Your task to perform on an android device: turn on the 24-hour format for clock Image 0: 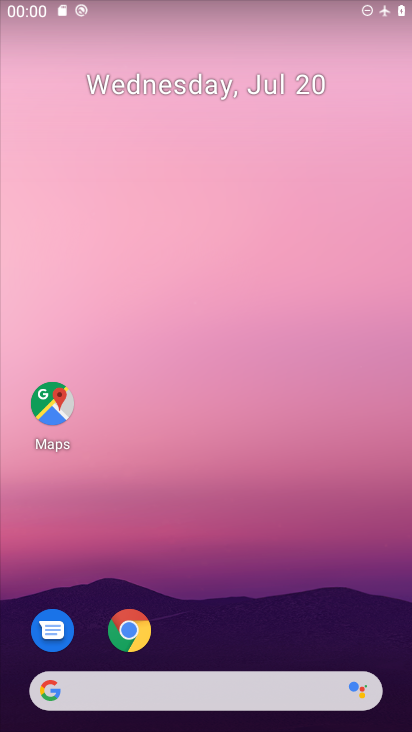
Step 0: drag from (205, 630) to (217, 139)
Your task to perform on an android device: turn on the 24-hour format for clock Image 1: 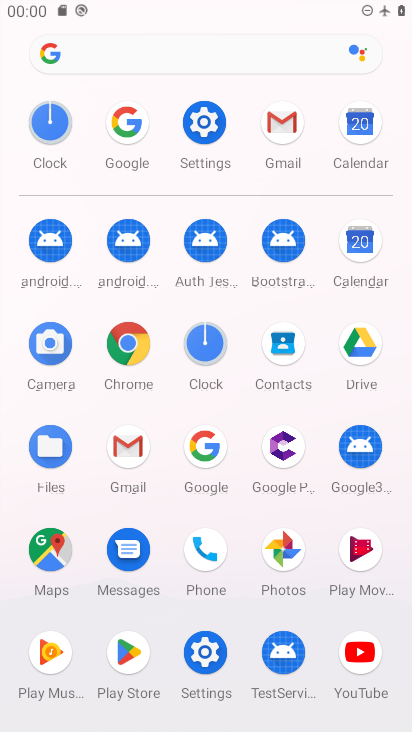
Step 1: click (196, 329)
Your task to perform on an android device: turn on the 24-hour format for clock Image 2: 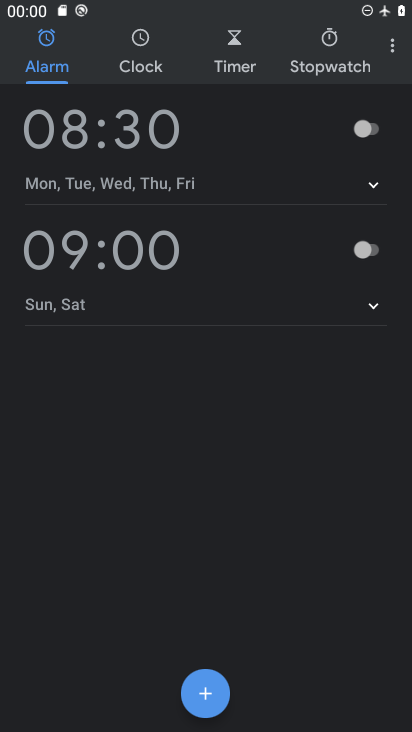
Step 2: click (387, 45)
Your task to perform on an android device: turn on the 24-hour format for clock Image 3: 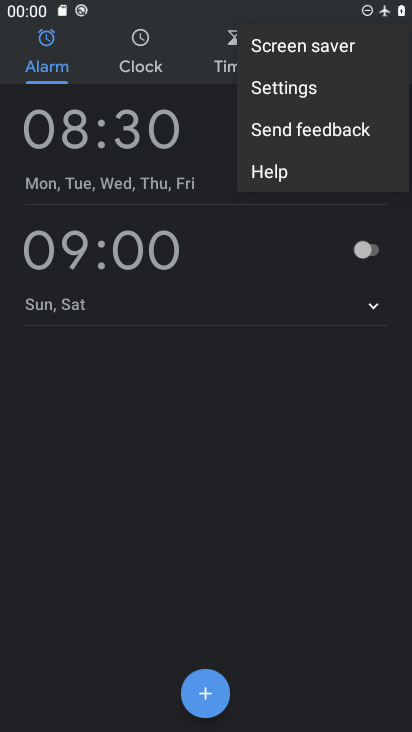
Step 3: click (358, 81)
Your task to perform on an android device: turn on the 24-hour format for clock Image 4: 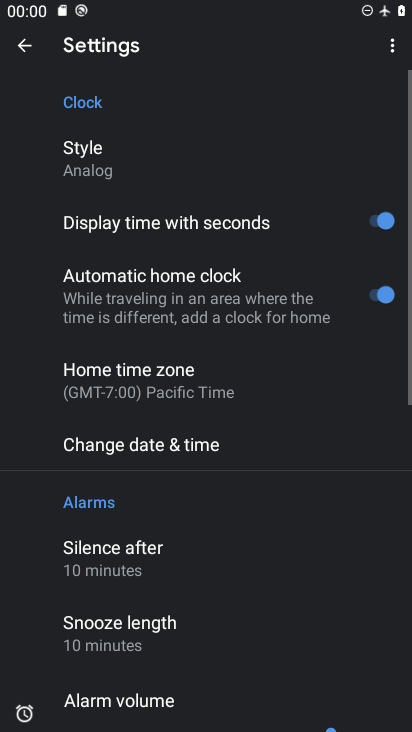
Step 4: click (152, 457)
Your task to perform on an android device: turn on the 24-hour format for clock Image 5: 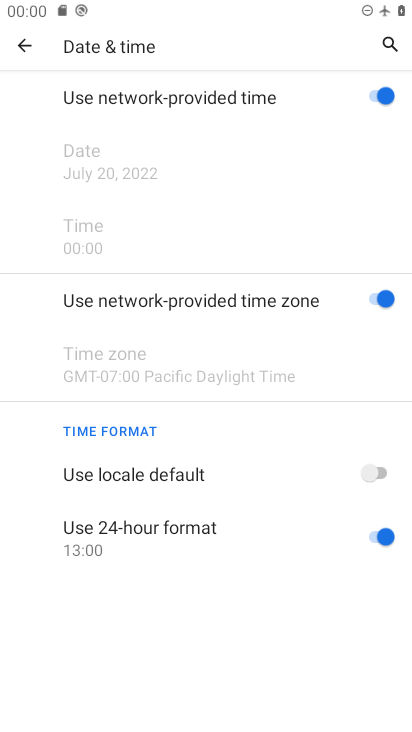
Step 5: task complete